Your task to perform on an android device: Open maps Image 0: 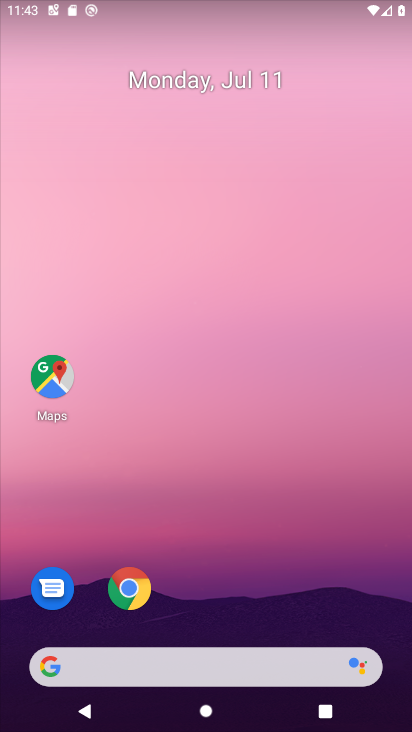
Step 0: drag from (296, 566) to (261, 178)
Your task to perform on an android device: Open maps Image 1: 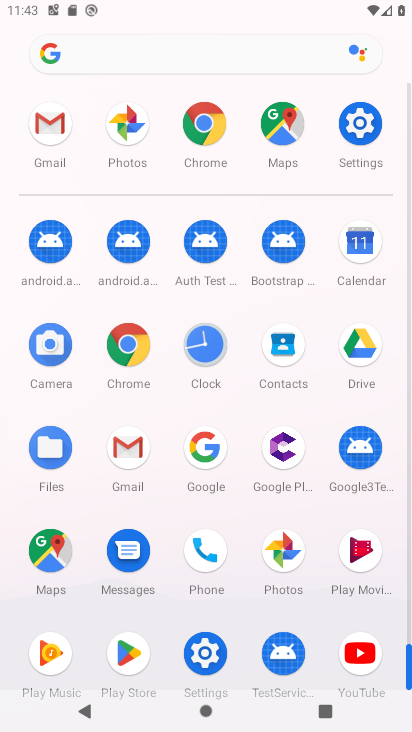
Step 1: click (56, 542)
Your task to perform on an android device: Open maps Image 2: 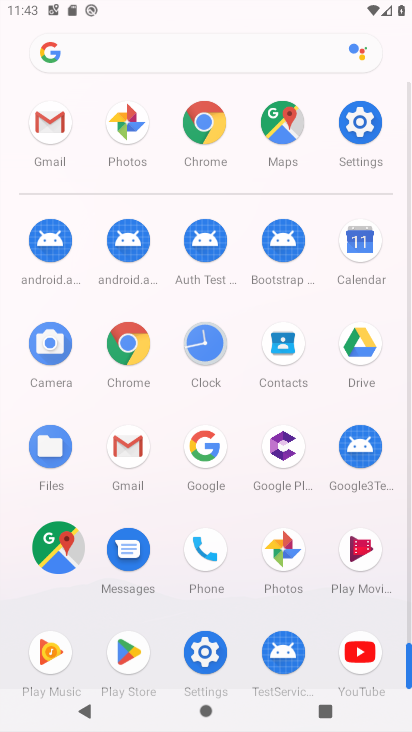
Step 2: click (40, 539)
Your task to perform on an android device: Open maps Image 3: 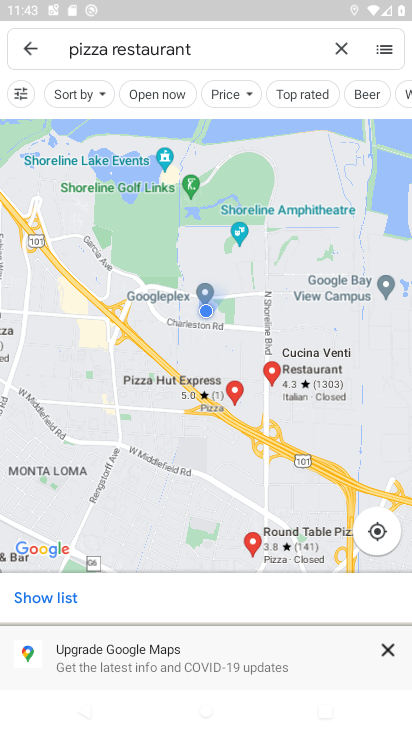
Step 3: task complete